Your task to perform on an android device: change the clock style Image 0: 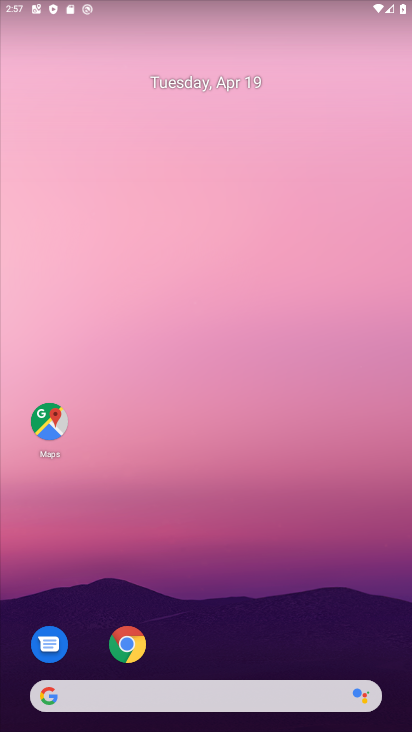
Step 0: click (284, 121)
Your task to perform on an android device: change the clock style Image 1: 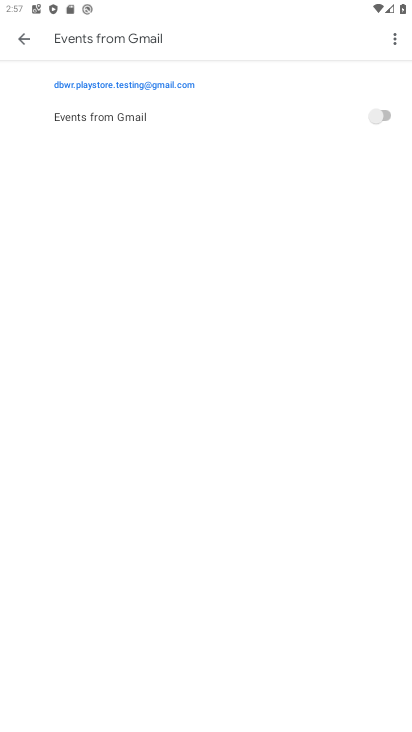
Step 1: press home button
Your task to perform on an android device: change the clock style Image 2: 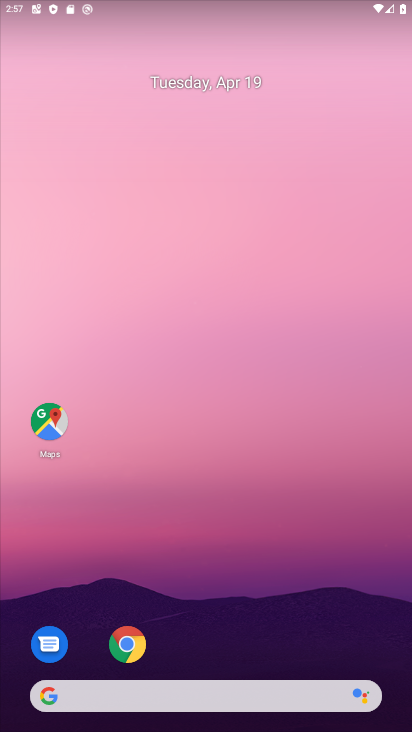
Step 2: drag from (237, 616) to (200, 98)
Your task to perform on an android device: change the clock style Image 3: 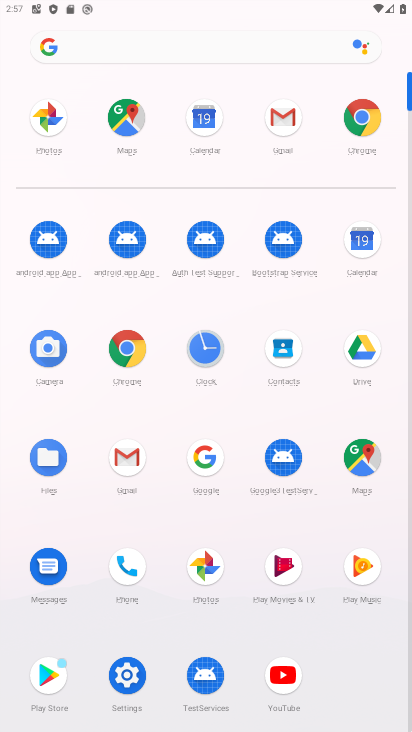
Step 3: click (211, 345)
Your task to perform on an android device: change the clock style Image 4: 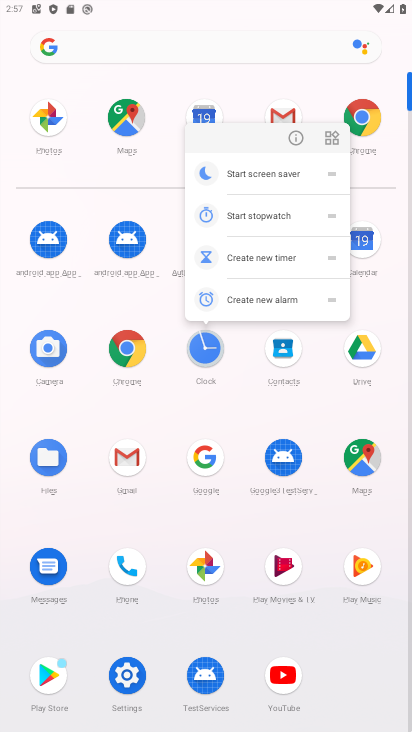
Step 4: click (196, 352)
Your task to perform on an android device: change the clock style Image 5: 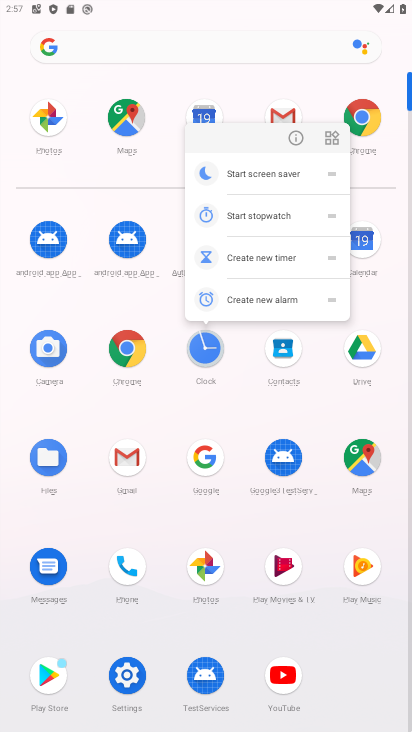
Step 5: click (199, 351)
Your task to perform on an android device: change the clock style Image 6: 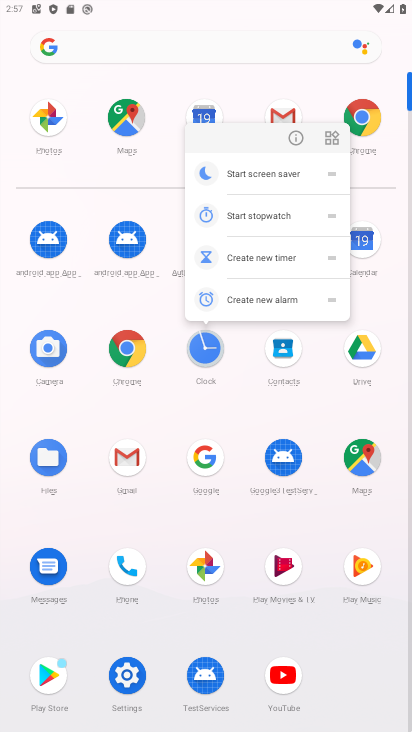
Step 6: click (363, 643)
Your task to perform on an android device: change the clock style Image 7: 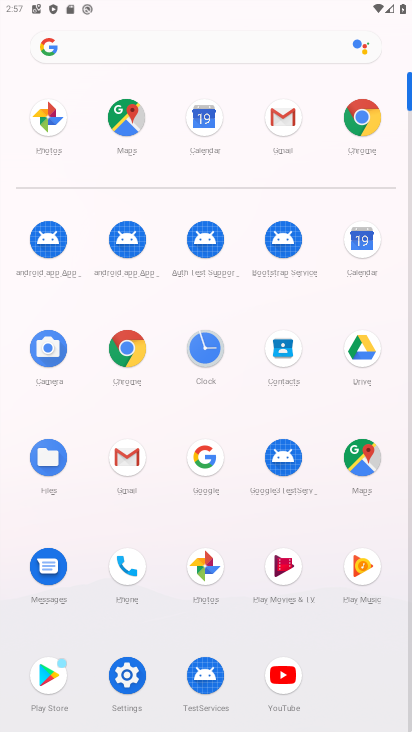
Step 7: click (200, 352)
Your task to perform on an android device: change the clock style Image 8: 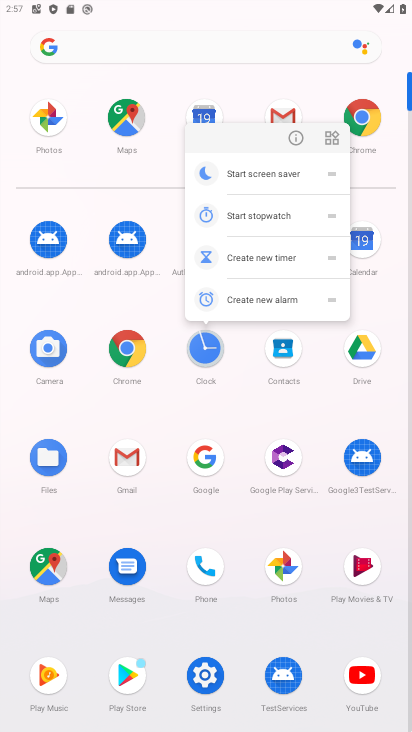
Step 8: click (206, 347)
Your task to perform on an android device: change the clock style Image 9: 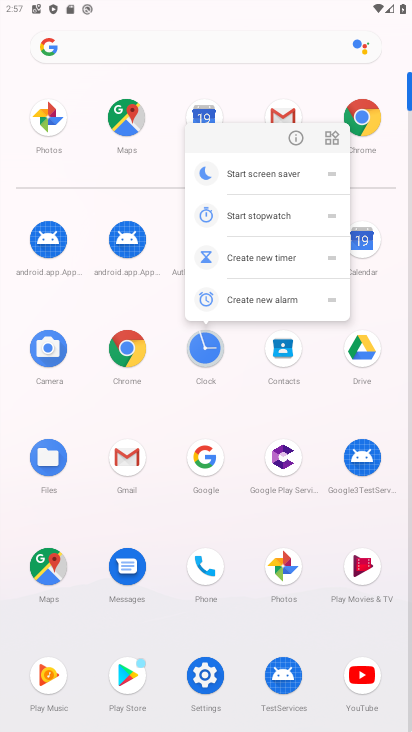
Step 9: click (205, 347)
Your task to perform on an android device: change the clock style Image 10: 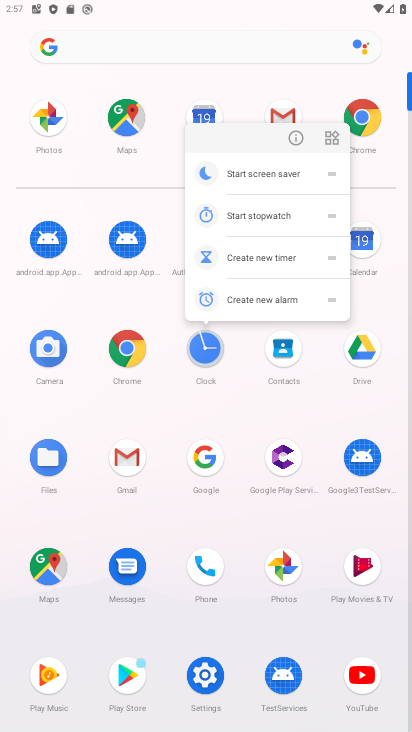
Step 10: click (322, 626)
Your task to perform on an android device: change the clock style Image 11: 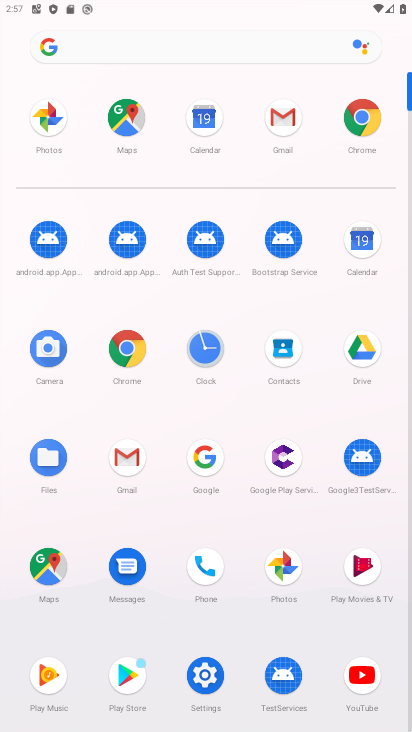
Step 11: click (198, 343)
Your task to perform on an android device: change the clock style Image 12: 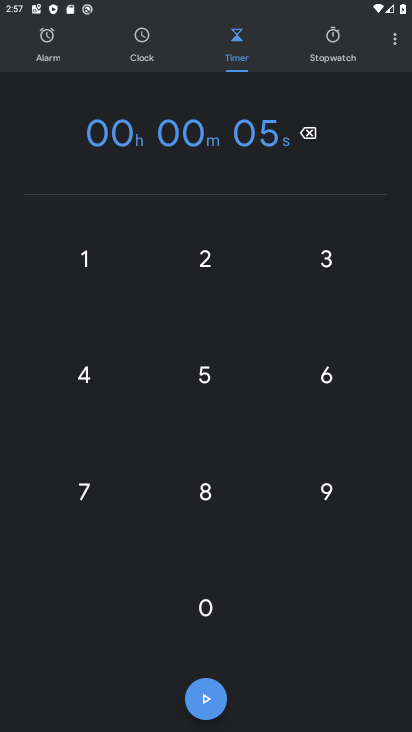
Step 12: click (395, 43)
Your task to perform on an android device: change the clock style Image 13: 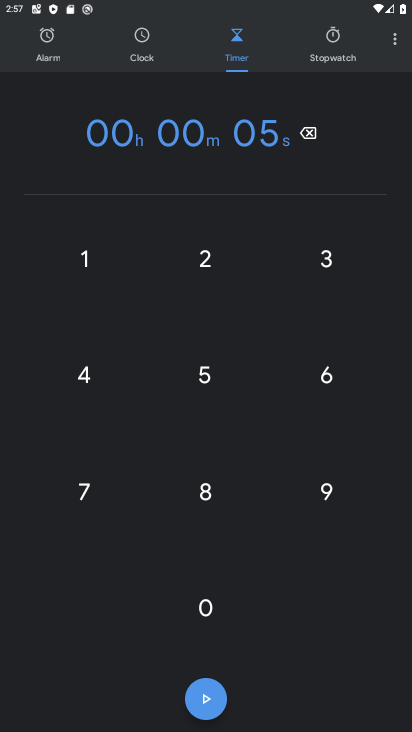
Step 13: click (396, 41)
Your task to perform on an android device: change the clock style Image 14: 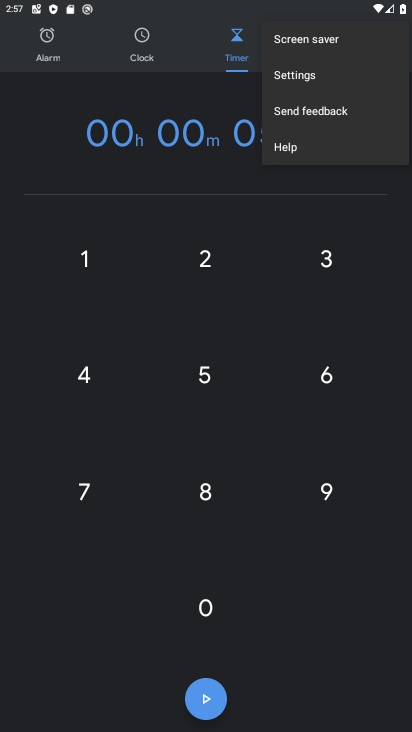
Step 14: click (311, 70)
Your task to perform on an android device: change the clock style Image 15: 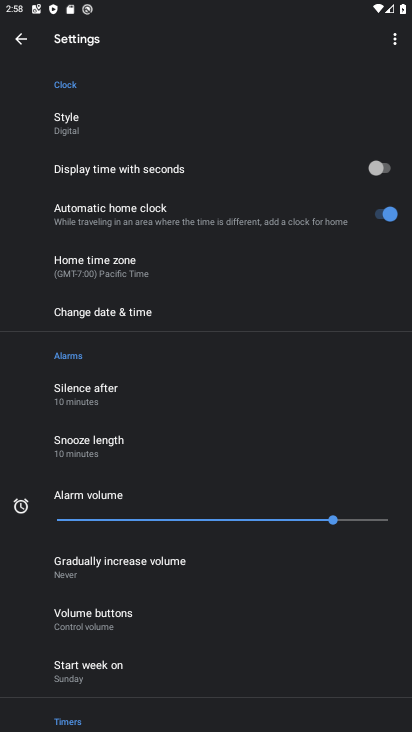
Step 15: click (77, 117)
Your task to perform on an android device: change the clock style Image 16: 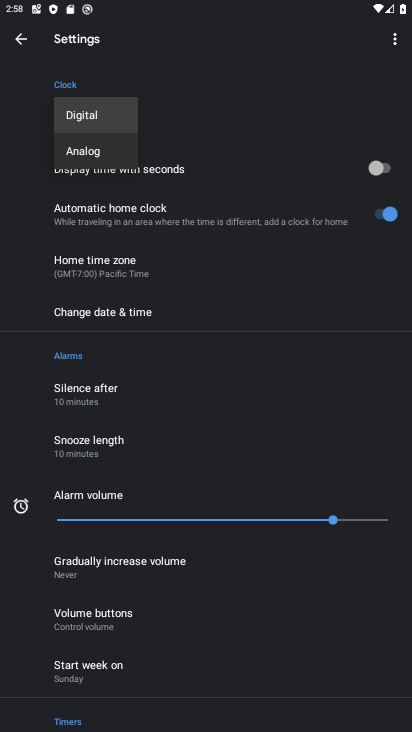
Step 16: click (105, 152)
Your task to perform on an android device: change the clock style Image 17: 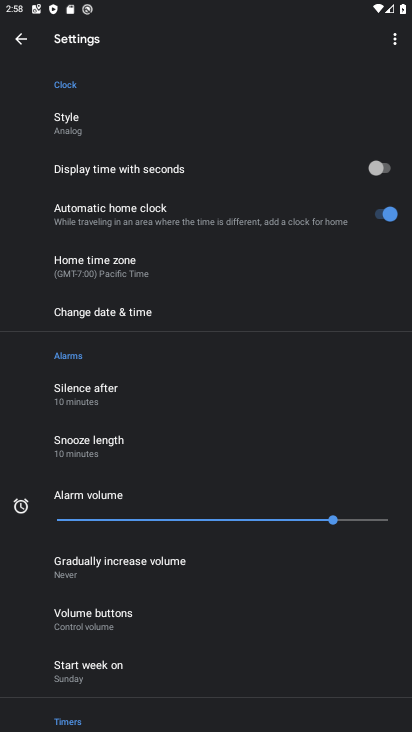
Step 17: task complete